Your task to perform on an android device: open app "Google Keep" Image 0: 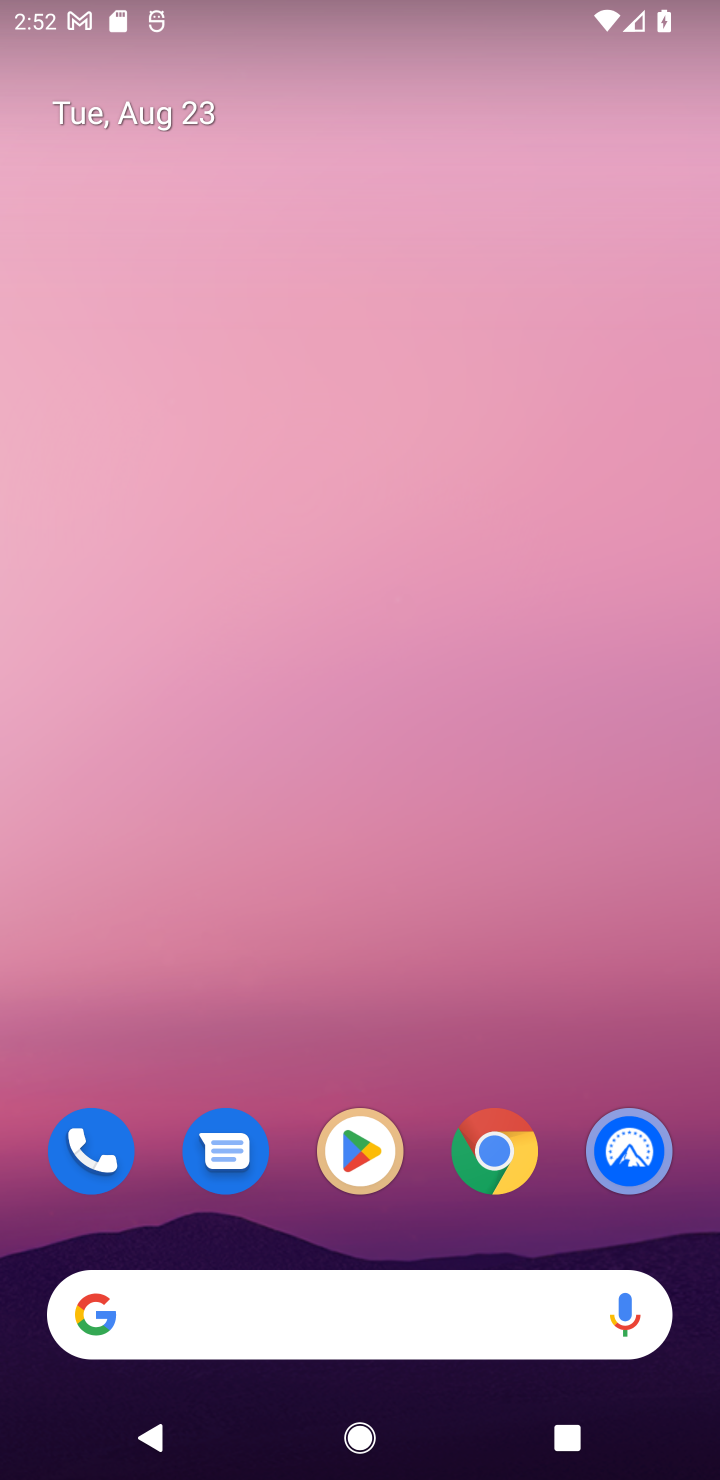
Step 0: click (372, 1135)
Your task to perform on an android device: open app "Google Keep" Image 1: 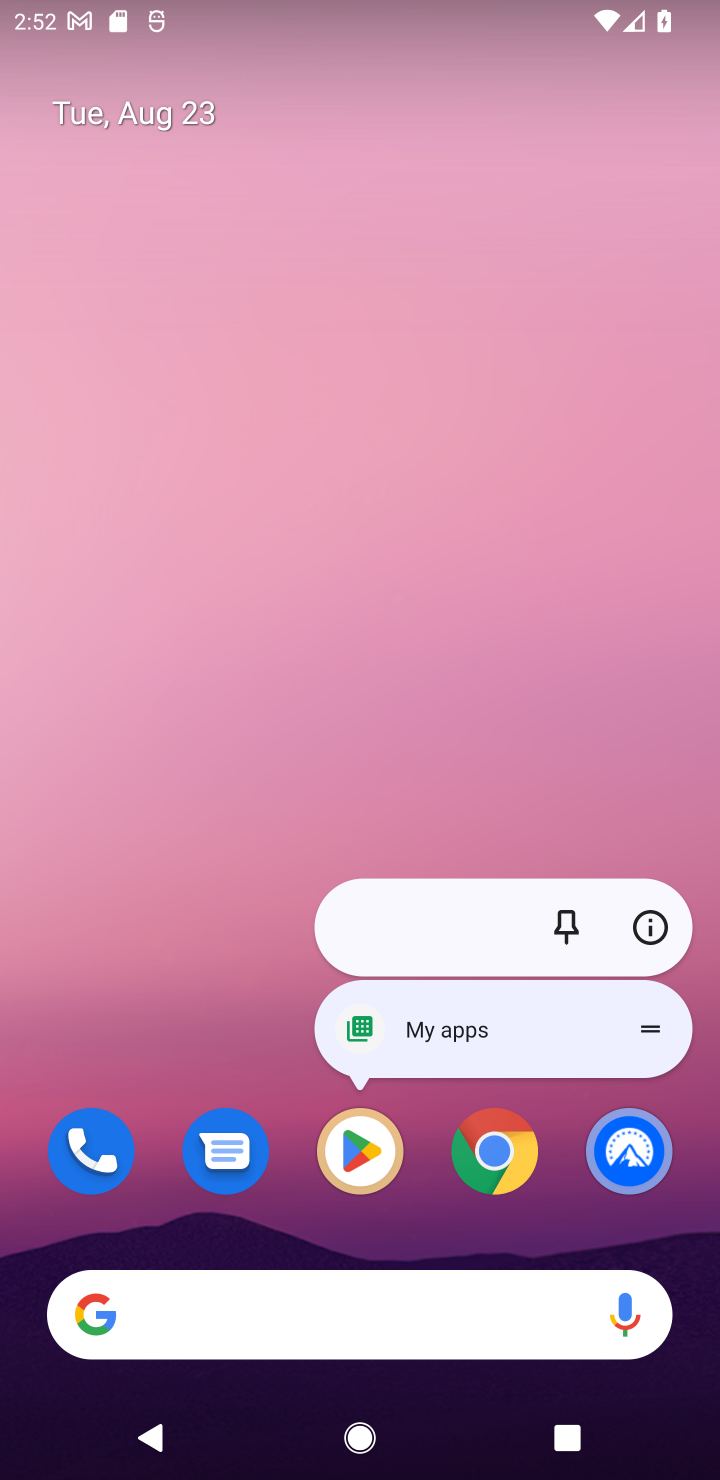
Step 1: click (370, 1140)
Your task to perform on an android device: open app "Google Keep" Image 2: 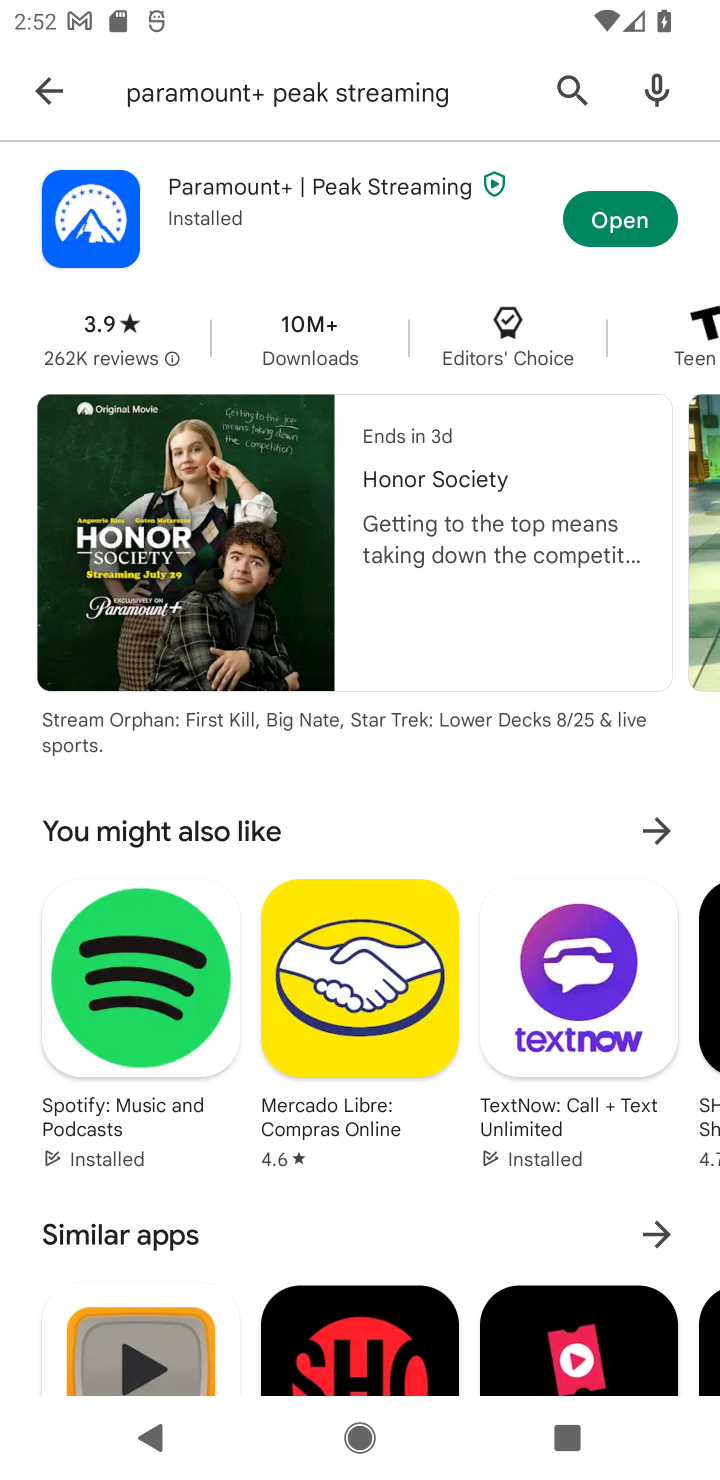
Step 2: click (566, 88)
Your task to perform on an android device: open app "Google Keep" Image 3: 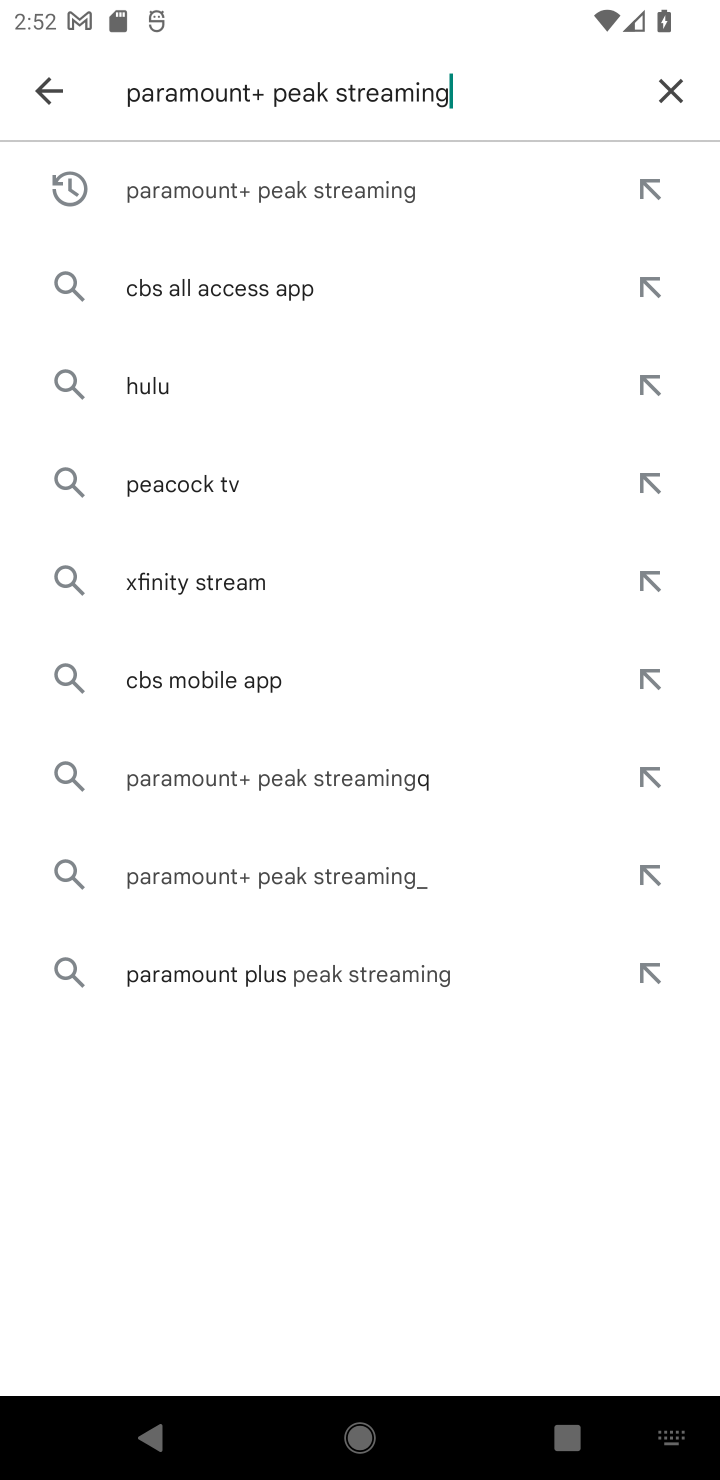
Step 3: click (664, 83)
Your task to perform on an android device: open app "Google Keep" Image 4: 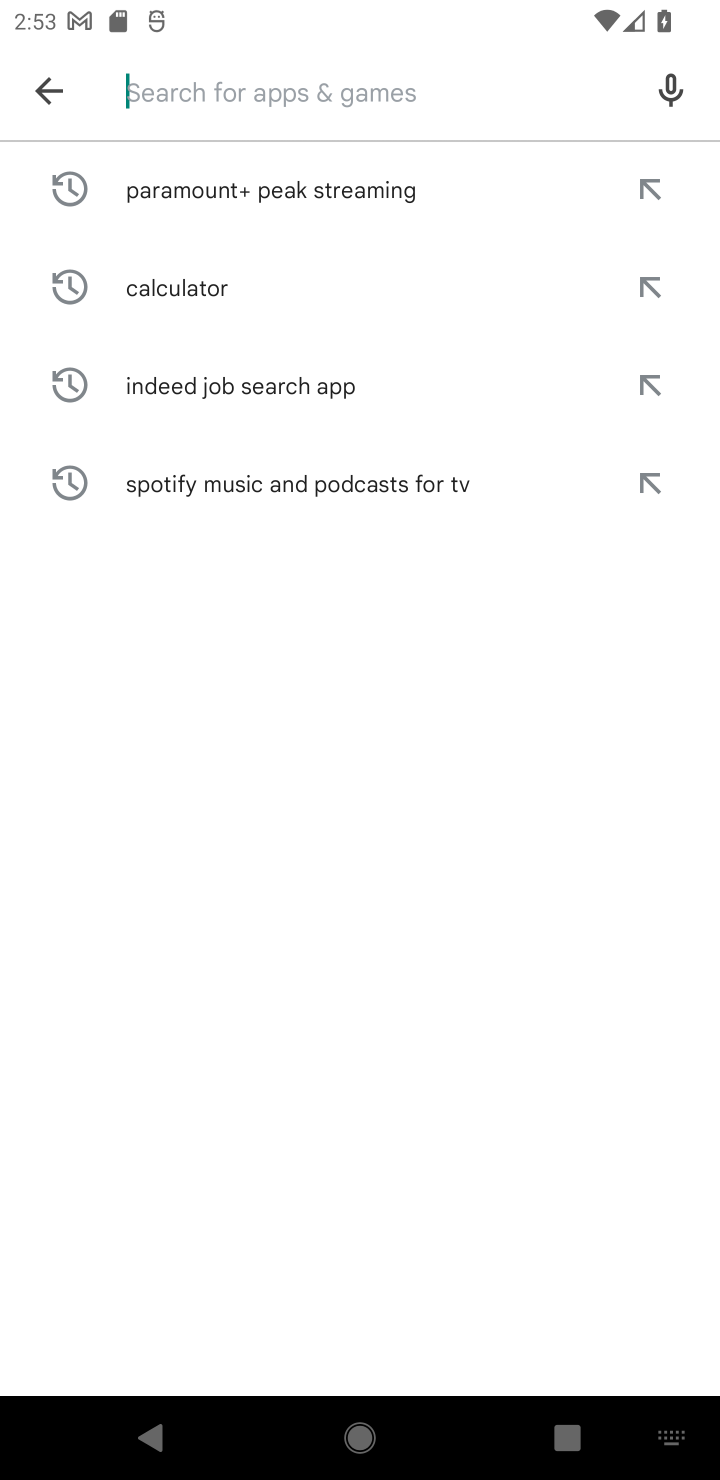
Step 4: type "Google Keep"
Your task to perform on an android device: open app "Google Keep" Image 5: 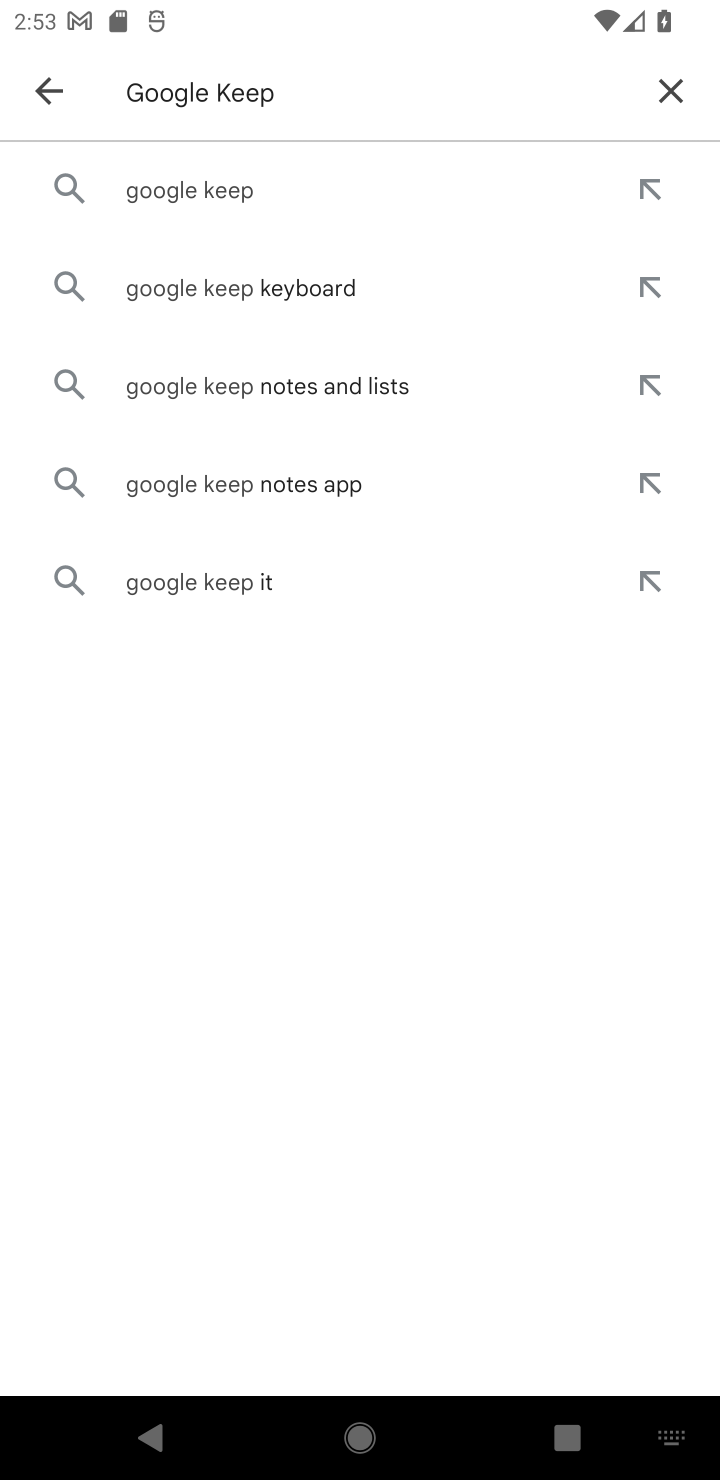
Step 5: click (212, 179)
Your task to perform on an android device: open app "Google Keep" Image 6: 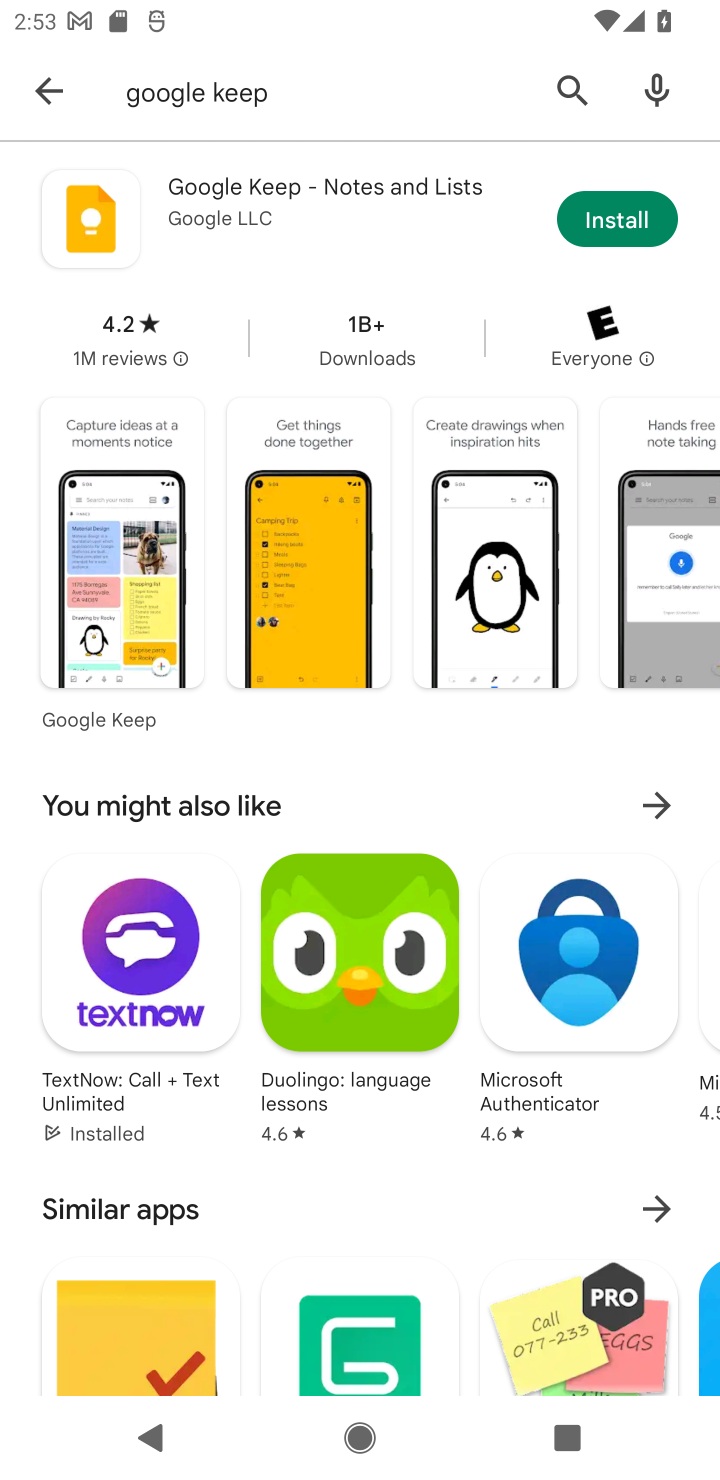
Step 6: task complete